Your task to perform on an android device: uninstall "Airtel Thanks" Image 0: 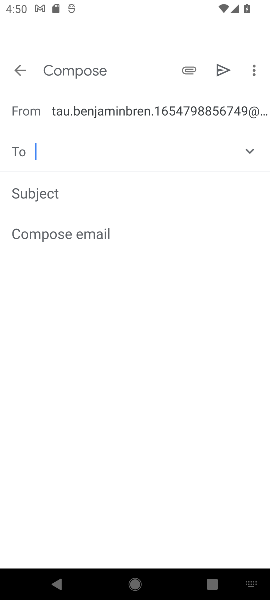
Step 0: press home button
Your task to perform on an android device: uninstall "Airtel Thanks" Image 1: 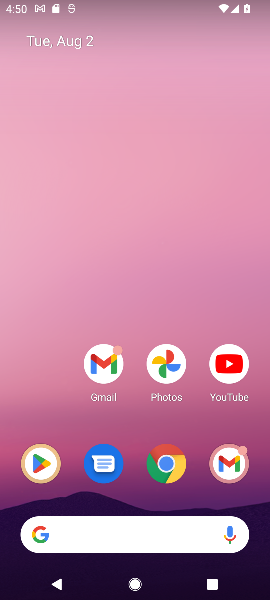
Step 1: click (51, 458)
Your task to perform on an android device: uninstall "Airtel Thanks" Image 2: 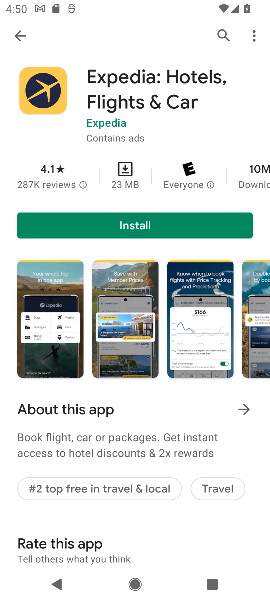
Step 2: click (218, 28)
Your task to perform on an android device: uninstall "Airtel Thanks" Image 3: 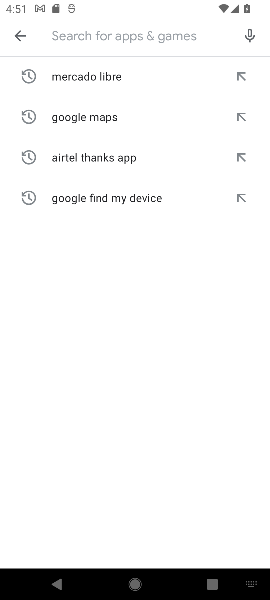
Step 3: type "Airtel Thanks"
Your task to perform on an android device: uninstall "Airtel Thanks" Image 4: 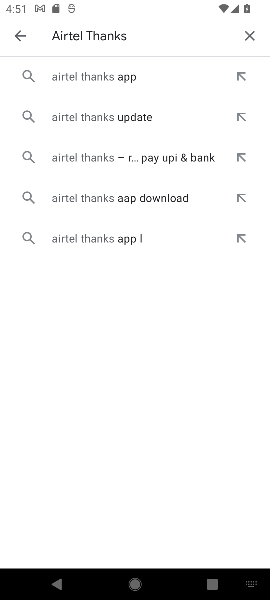
Step 4: click (95, 83)
Your task to perform on an android device: uninstall "Airtel Thanks" Image 5: 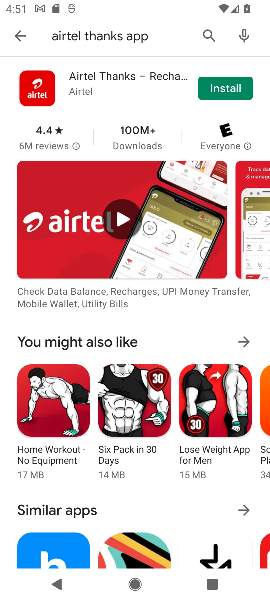
Step 5: task complete